Your task to perform on an android device: Check the news Image 0: 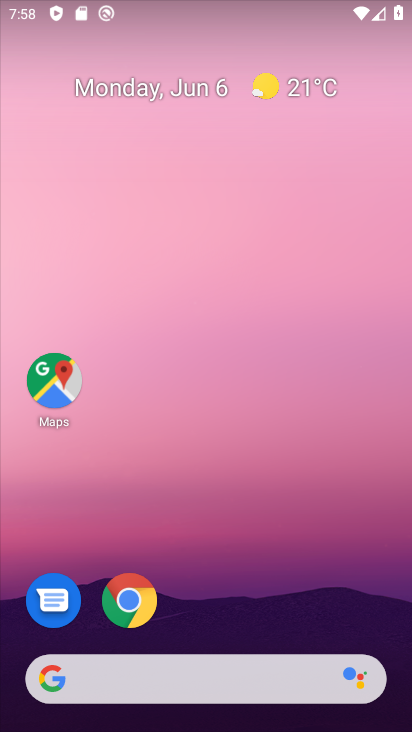
Step 0: drag from (234, 569) to (219, 42)
Your task to perform on an android device: Check the news Image 1: 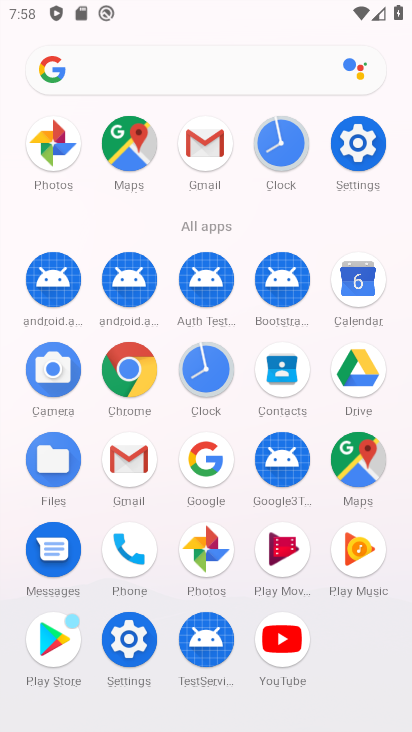
Step 1: drag from (9, 501) to (35, 194)
Your task to perform on an android device: Check the news Image 2: 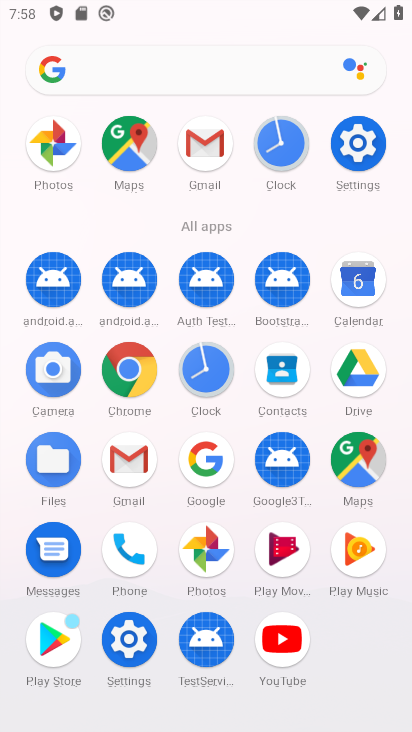
Step 2: click (129, 364)
Your task to perform on an android device: Check the news Image 3: 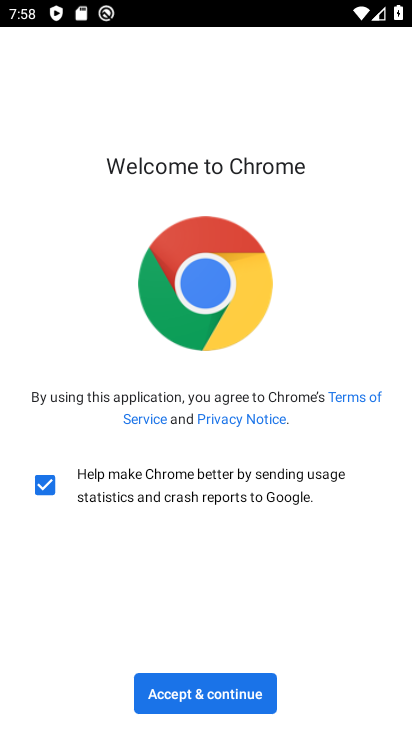
Step 3: click (187, 679)
Your task to perform on an android device: Check the news Image 4: 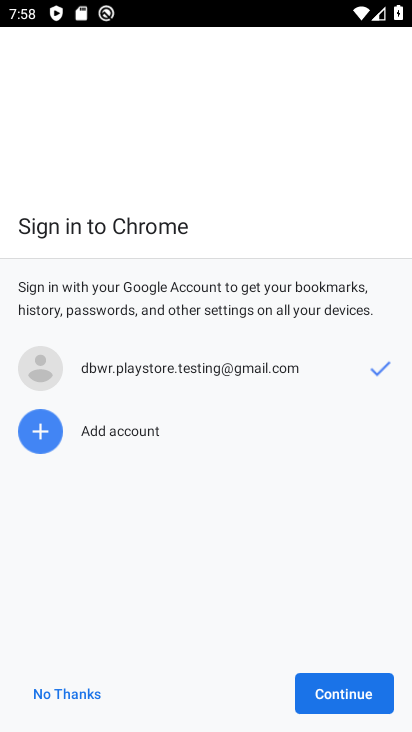
Step 4: click (345, 682)
Your task to perform on an android device: Check the news Image 5: 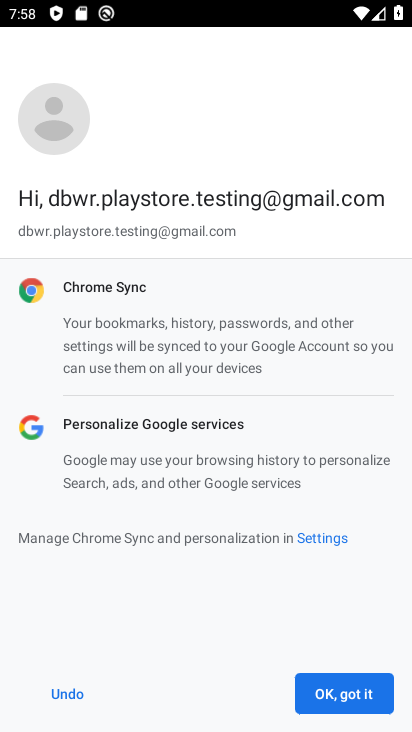
Step 5: click (345, 692)
Your task to perform on an android device: Check the news Image 6: 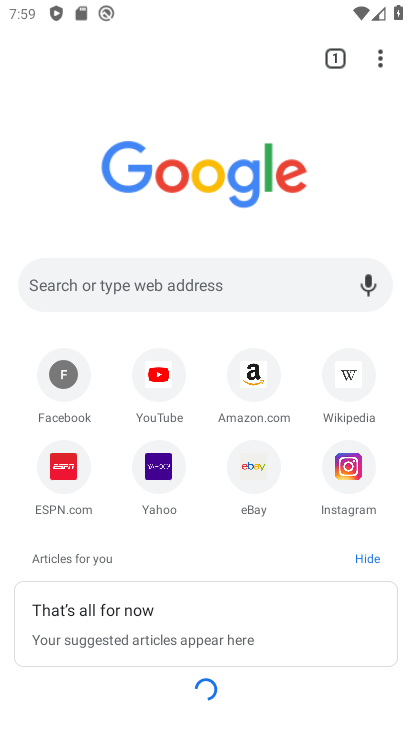
Step 6: click (247, 279)
Your task to perform on an android device: Check the news Image 7: 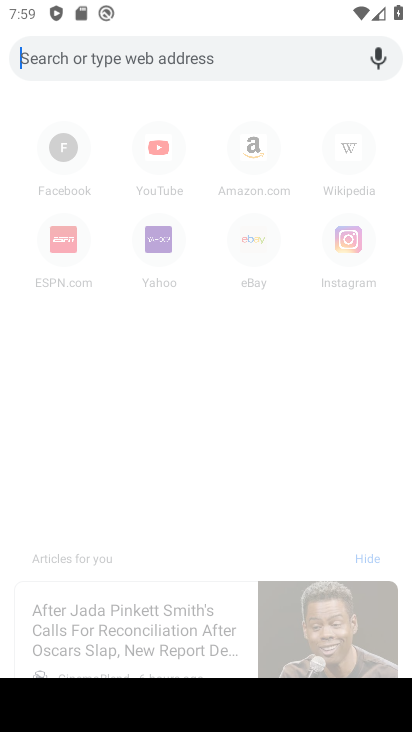
Step 7: type "Check the news"
Your task to perform on an android device: Check the news Image 8: 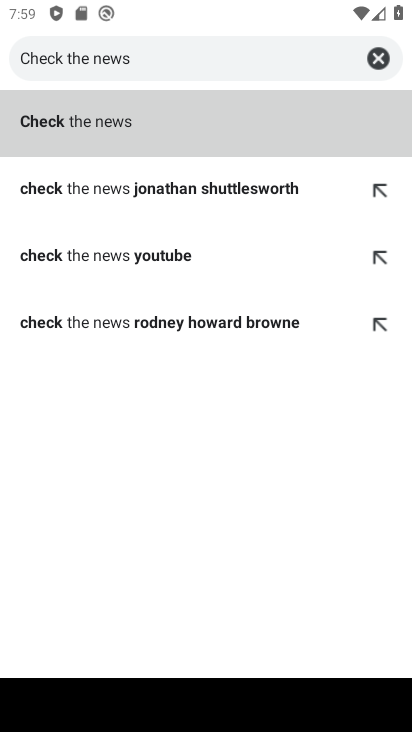
Step 8: click (125, 126)
Your task to perform on an android device: Check the news Image 9: 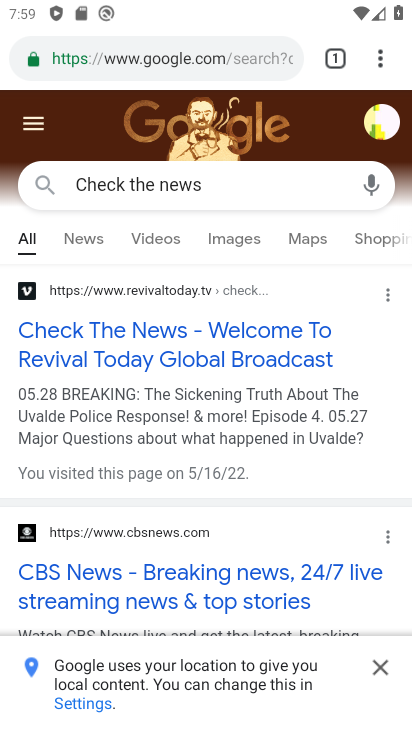
Step 9: click (81, 234)
Your task to perform on an android device: Check the news Image 10: 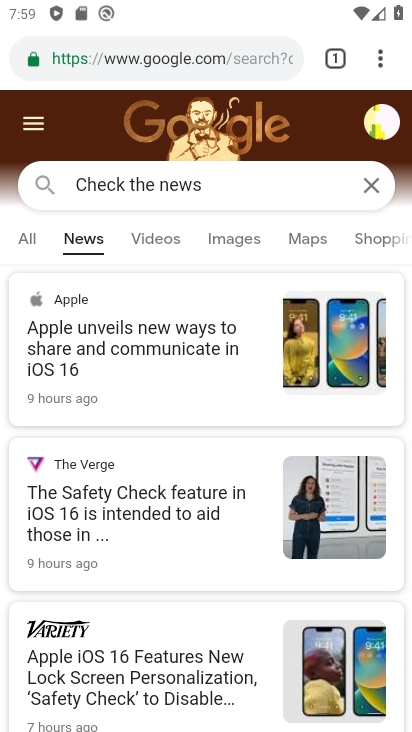
Step 10: task complete